Your task to perform on an android device: Open the Play Movies app and select the watchlist tab. Image 0: 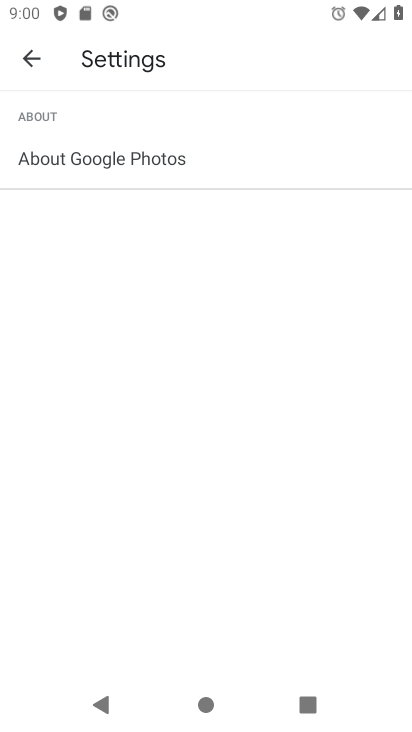
Step 0: click (395, 454)
Your task to perform on an android device: Open the Play Movies app and select the watchlist tab. Image 1: 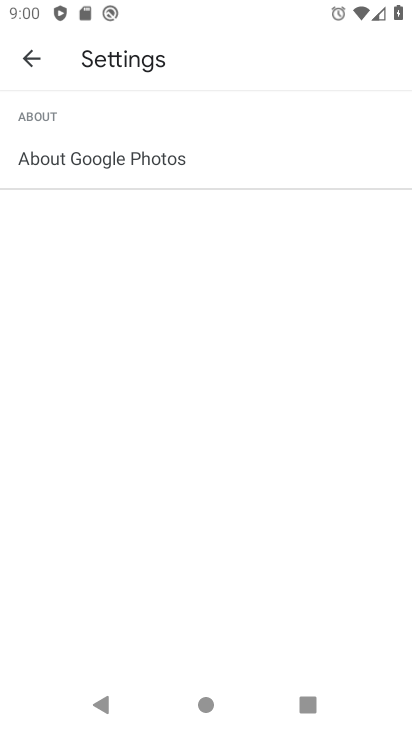
Step 1: click (31, 70)
Your task to perform on an android device: Open the Play Movies app and select the watchlist tab. Image 2: 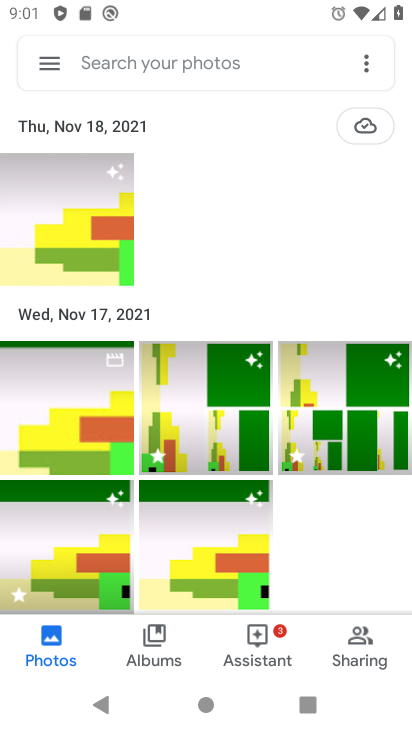
Step 2: press back button
Your task to perform on an android device: Open the Play Movies app and select the watchlist tab. Image 3: 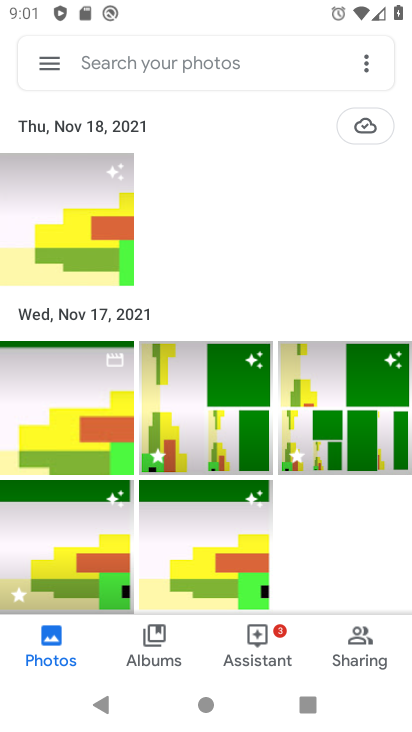
Step 3: press back button
Your task to perform on an android device: Open the Play Movies app and select the watchlist tab. Image 4: 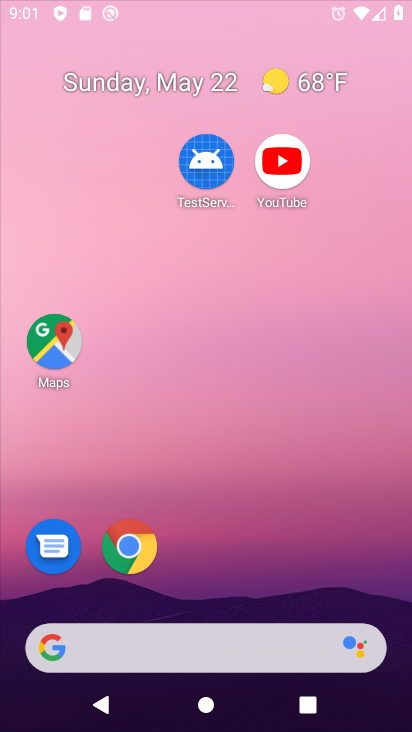
Step 4: press back button
Your task to perform on an android device: Open the Play Movies app and select the watchlist tab. Image 5: 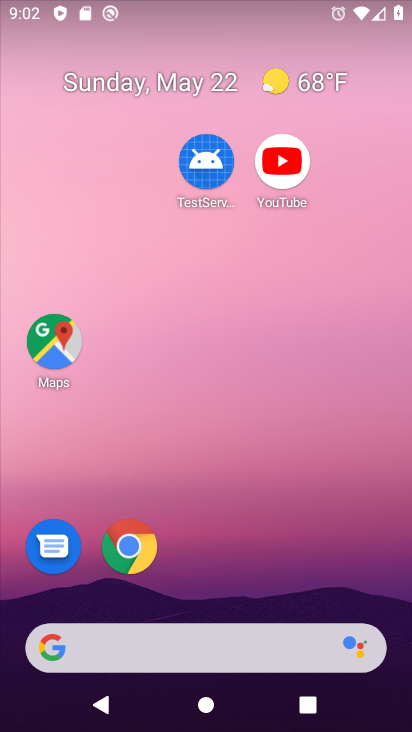
Step 5: drag from (268, 703) to (303, 11)
Your task to perform on an android device: Open the Play Movies app and select the watchlist tab. Image 6: 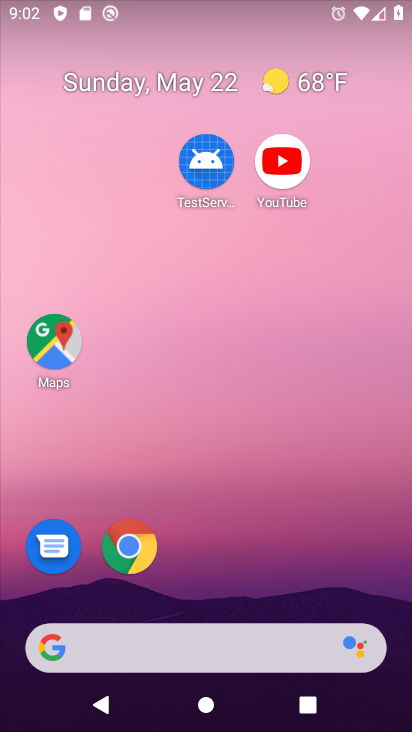
Step 6: drag from (244, 565) to (219, 0)
Your task to perform on an android device: Open the Play Movies app and select the watchlist tab. Image 7: 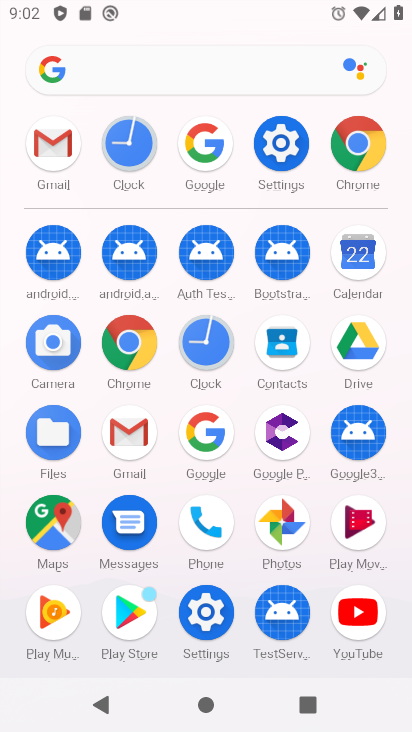
Step 7: click (352, 530)
Your task to perform on an android device: Open the Play Movies app and select the watchlist tab. Image 8: 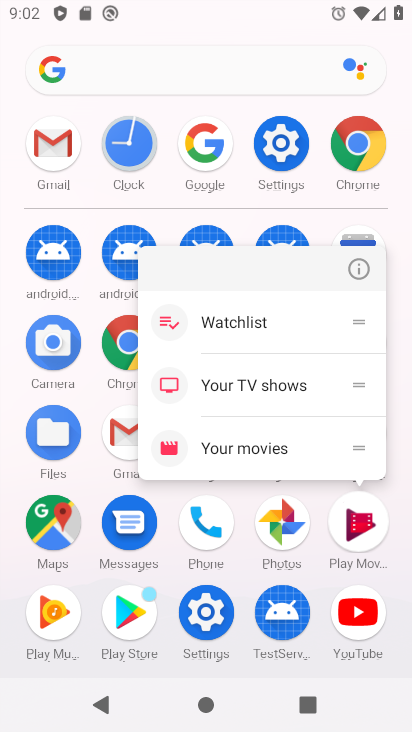
Step 8: click (352, 527)
Your task to perform on an android device: Open the Play Movies app and select the watchlist tab. Image 9: 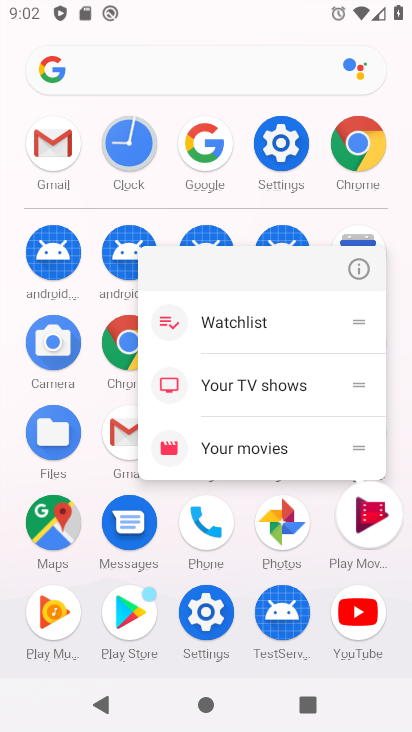
Step 9: task complete